Your task to perform on an android device: turn off notifications in google photos Image 0: 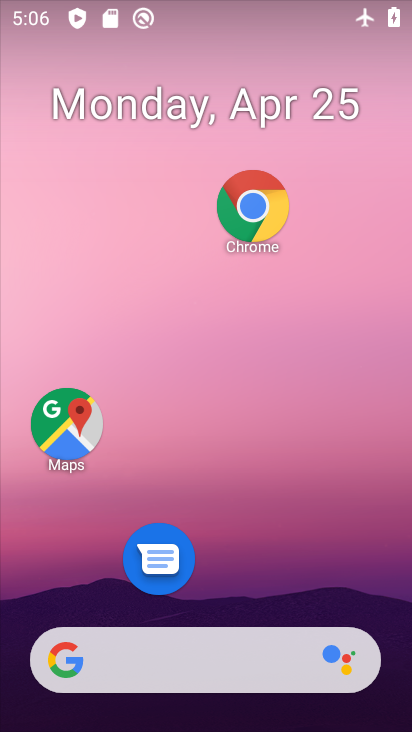
Step 0: drag from (278, 567) to (244, 211)
Your task to perform on an android device: turn off notifications in google photos Image 1: 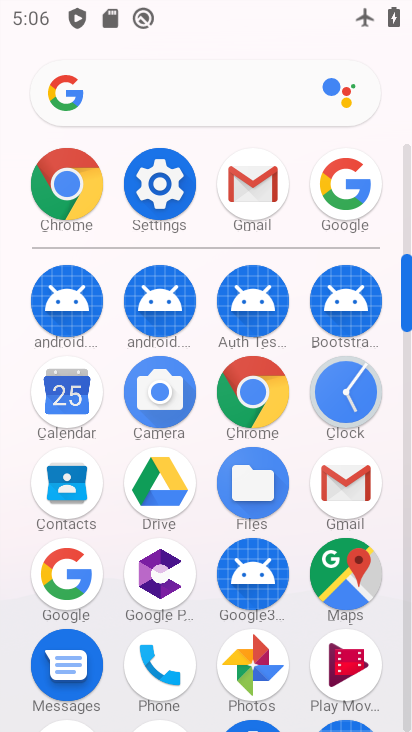
Step 1: click (260, 645)
Your task to perform on an android device: turn off notifications in google photos Image 2: 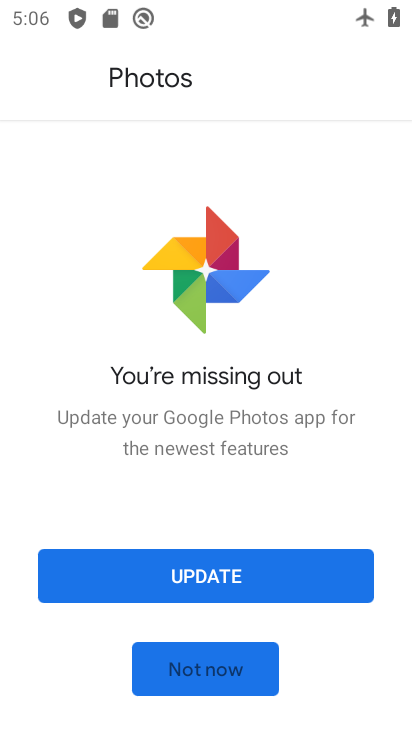
Step 2: click (249, 586)
Your task to perform on an android device: turn off notifications in google photos Image 3: 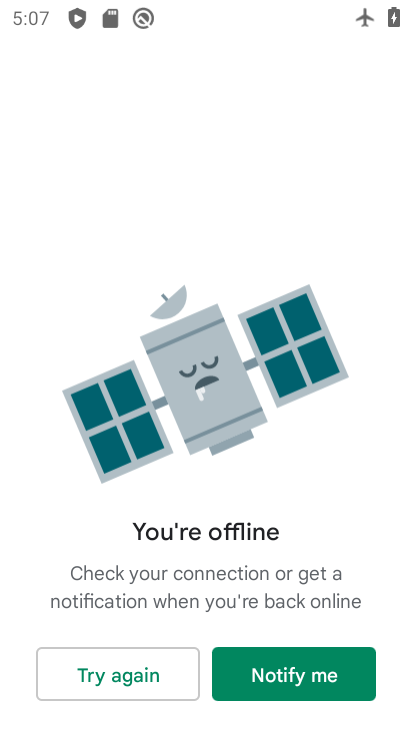
Step 3: task complete